Your task to perform on an android device: Go to Google maps Image 0: 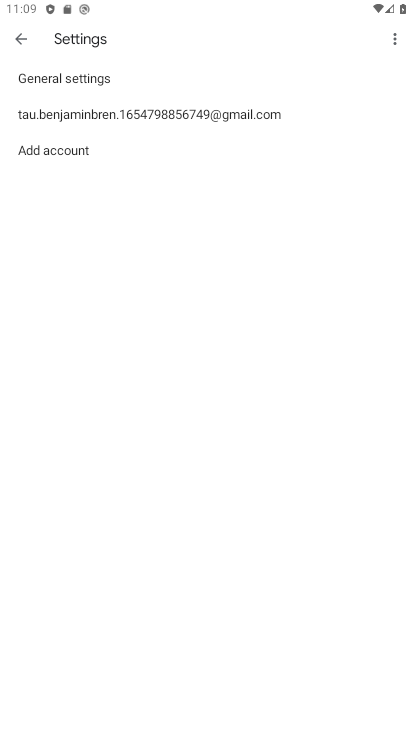
Step 0: press home button
Your task to perform on an android device: Go to Google maps Image 1: 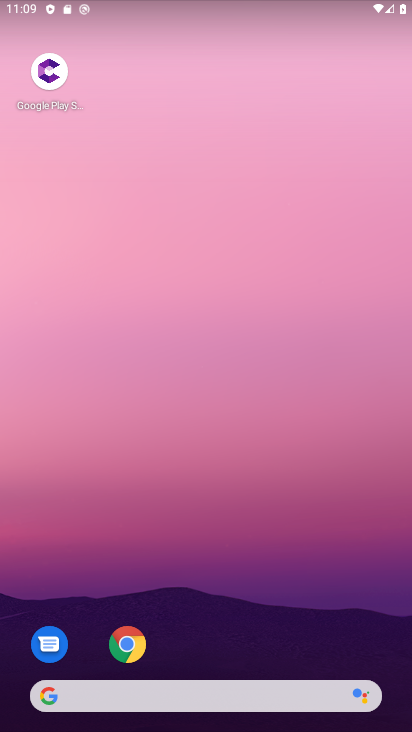
Step 1: drag from (247, 656) to (279, 215)
Your task to perform on an android device: Go to Google maps Image 2: 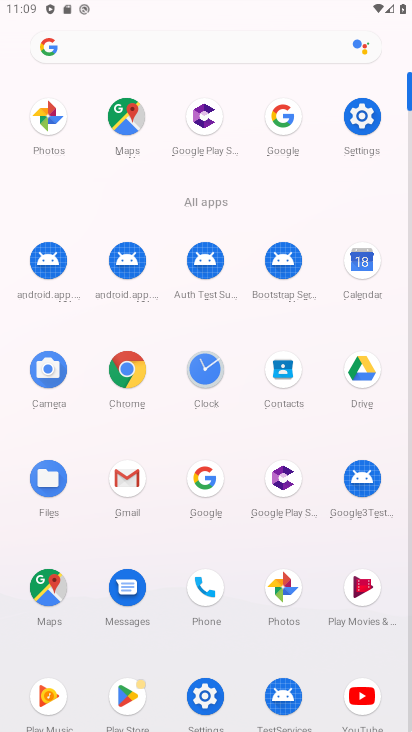
Step 2: click (57, 587)
Your task to perform on an android device: Go to Google maps Image 3: 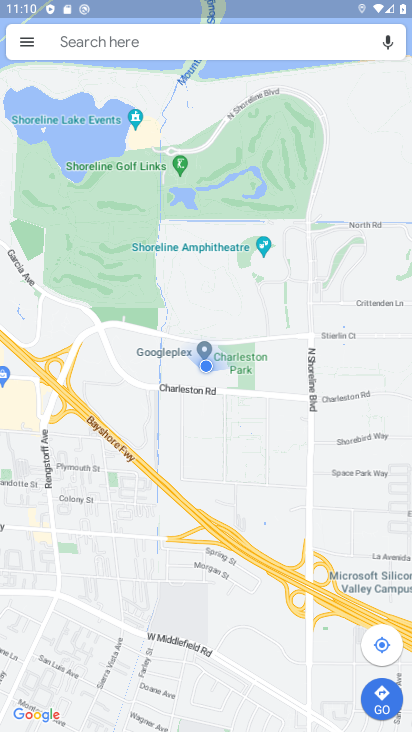
Step 3: task complete